Your task to perform on an android device: Search for bose soundlink mini on ebay.com, select the first entry, and add it to the cart. Image 0: 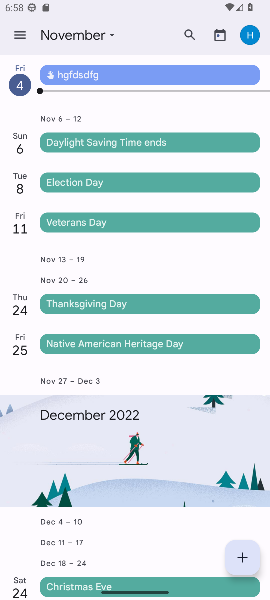
Step 0: press home button
Your task to perform on an android device: Search for bose soundlink mini on ebay.com, select the first entry, and add it to the cart. Image 1: 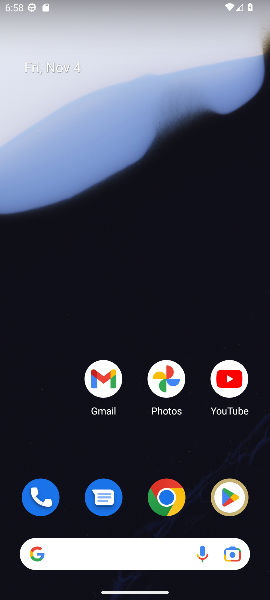
Step 1: click (167, 507)
Your task to perform on an android device: Search for bose soundlink mini on ebay.com, select the first entry, and add it to the cart. Image 2: 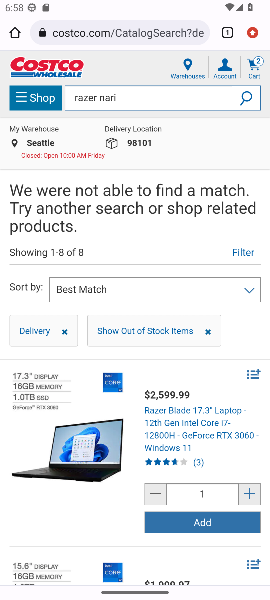
Step 2: click (117, 34)
Your task to perform on an android device: Search for bose soundlink mini on ebay.com, select the first entry, and add it to the cart. Image 3: 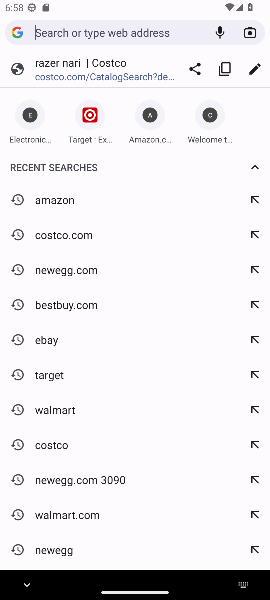
Step 3: type "ebay.com"
Your task to perform on an android device: Search for bose soundlink mini on ebay.com, select the first entry, and add it to the cart. Image 4: 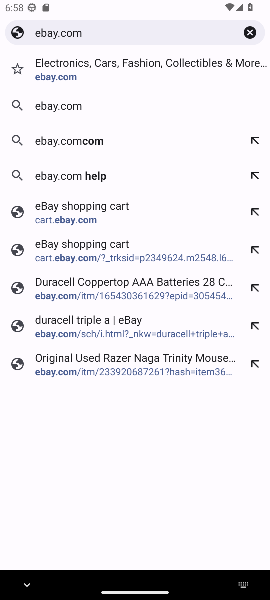
Step 4: click (63, 79)
Your task to perform on an android device: Search for bose soundlink mini on ebay.com, select the first entry, and add it to the cart. Image 5: 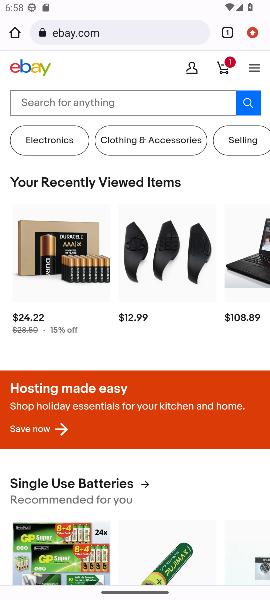
Step 5: click (55, 105)
Your task to perform on an android device: Search for bose soundlink mini on ebay.com, select the first entry, and add it to the cart. Image 6: 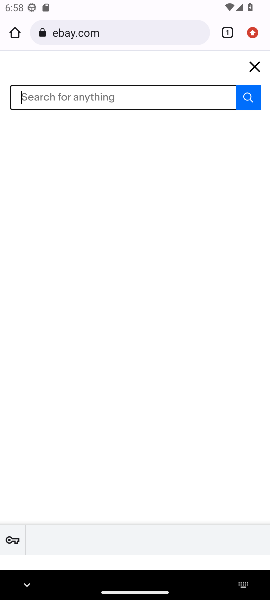
Step 6: type "bose soundlink mini"
Your task to perform on an android device: Search for bose soundlink mini on ebay.com, select the first entry, and add it to the cart. Image 7: 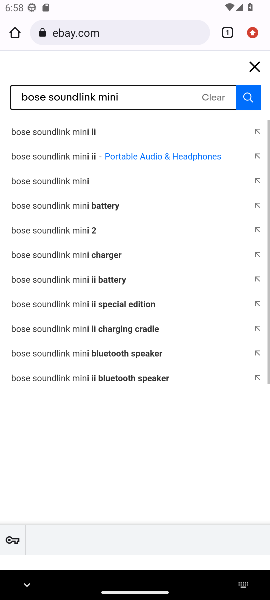
Step 7: click (247, 92)
Your task to perform on an android device: Search for bose soundlink mini on ebay.com, select the first entry, and add it to the cart. Image 8: 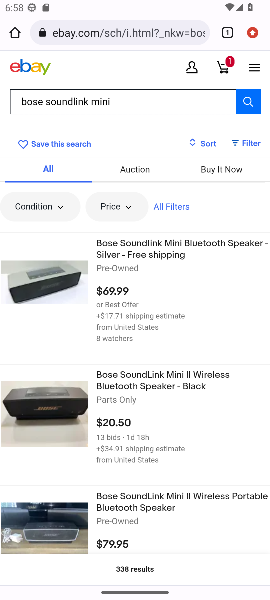
Step 8: click (72, 287)
Your task to perform on an android device: Search for bose soundlink mini on ebay.com, select the first entry, and add it to the cart. Image 9: 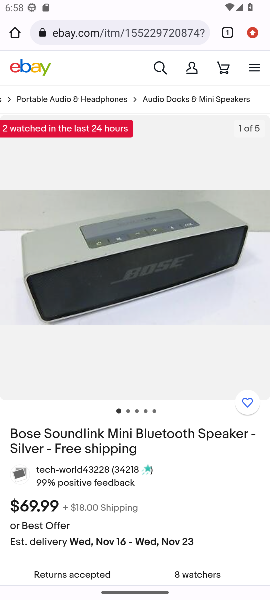
Step 9: drag from (191, 498) to (192, 212)
Your task to perform on an android device: Search for bose soundlink mini on ebay.com, select the first entry, and add it to the cart. Image 10: 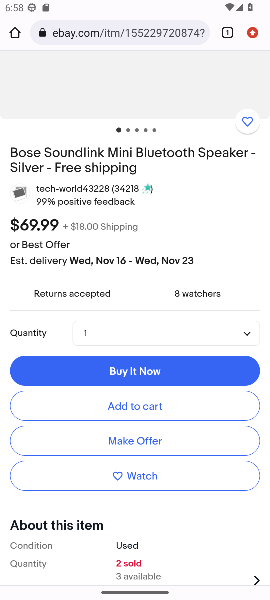
Step 10: click (131, 407)
Your task to perform on an android device: Search for bose soundlink mini on ebay.com, select the first entry, and add it to the cart. Image 11: 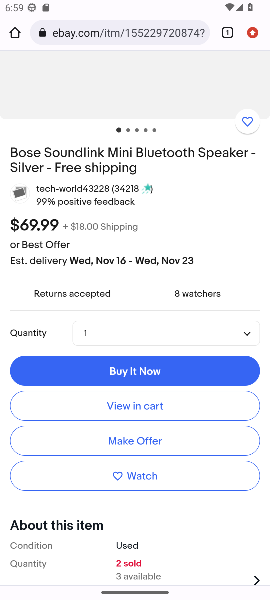
Step 11: task complete